Your task to perform on an android device: delete the emails in spam in the gmail app Image 0: 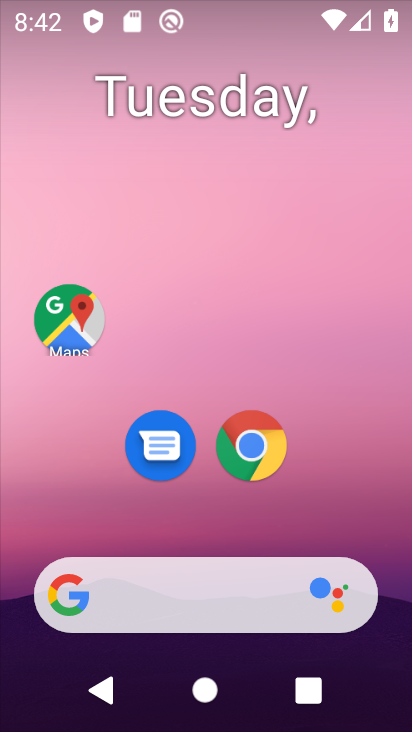
Step 0: drag from (371, 404) to (366, 50)
Your task to perform on an android device: delete the emails in spam in the gmail app Image 1: 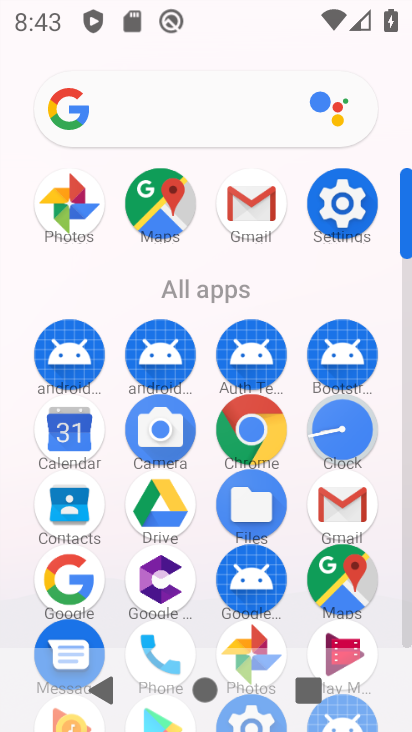
Step 1: click (237, 212)
Your task to perform on an android device: delete the emails in spam in the gmail app Image 2: 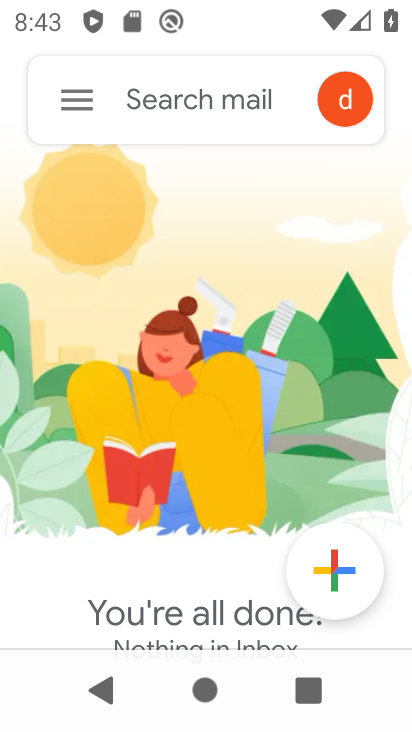
Step 2: click (101, 124)
Your task to perform on an android device: delete the emails in spam in the gmail app Image 3: 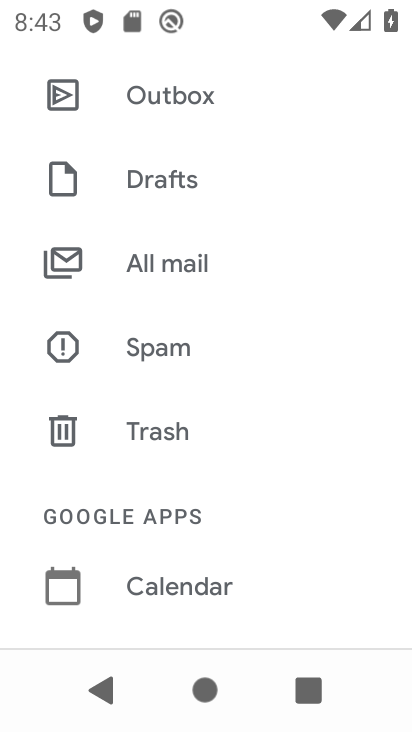
Step 3: click (161, 271)
Your task to perform on an android device: delete the emails in spam in the gmail app Image 4: 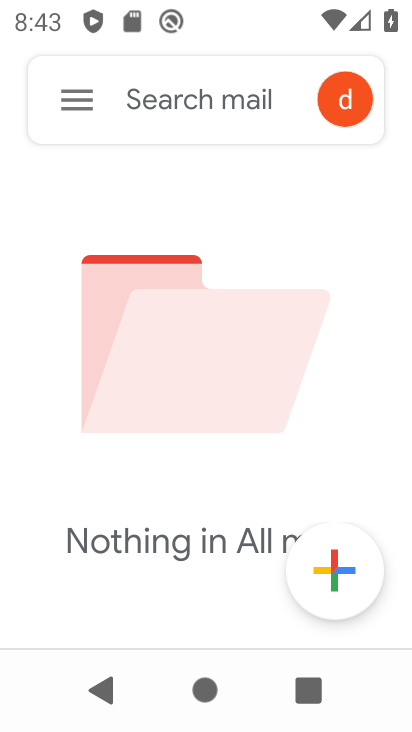
Step 4: click (95, 95)
Your task to perform on an android device: delete the emails in spam in the gmail app Image 5: 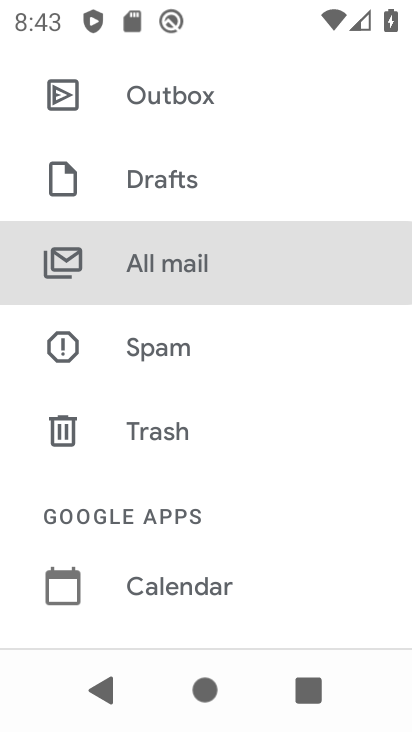
Step 5: click (172, 324)
Your task to perform on an android device: delete the emails in spam in the gmail app Image 6: 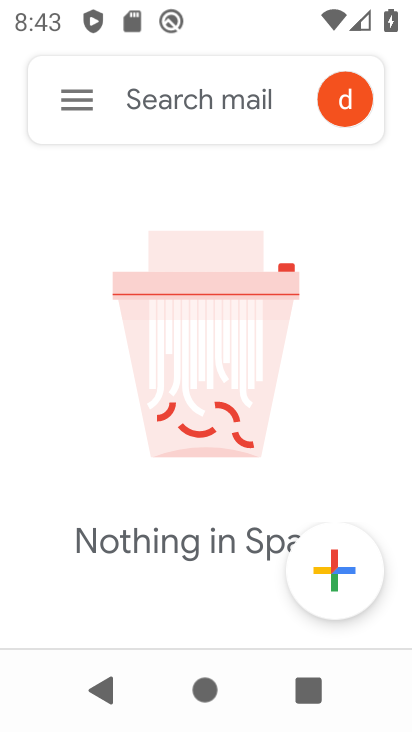
Step 6: task complete